Your task to perform on an android device: Open the map Image 0: 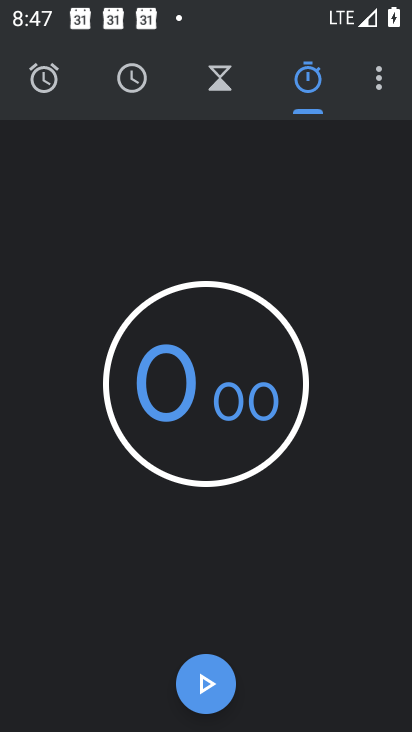
Step 0: press home button
Your task to perform on an android device: Open the map Image 1: 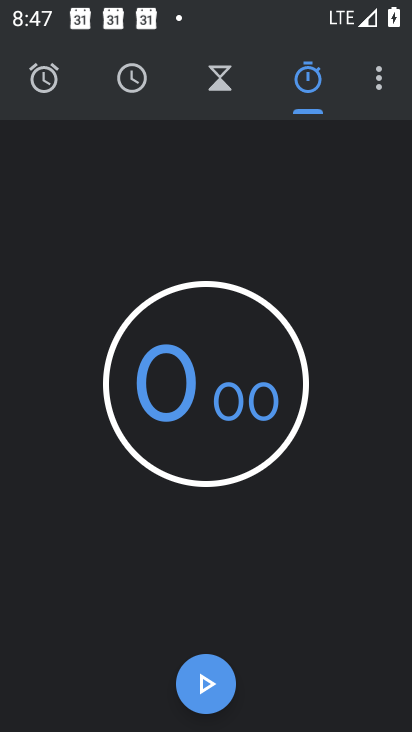
Step 1: press home button
Your task to perform on an android device: Open the map Image 2: 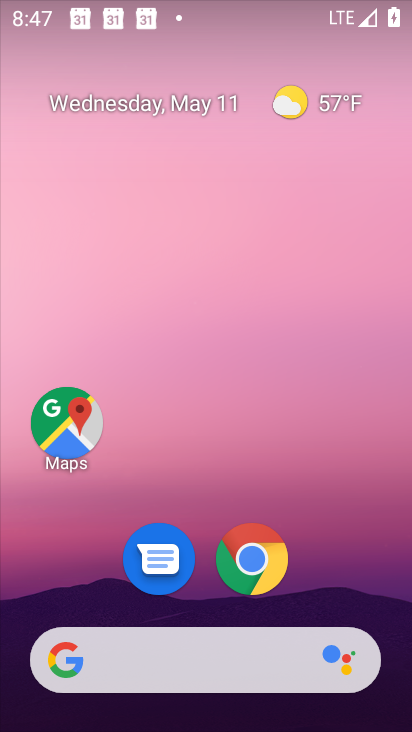
Step 2: click (69, 434)
Your task to perform on an android device: Open the map Image 3: 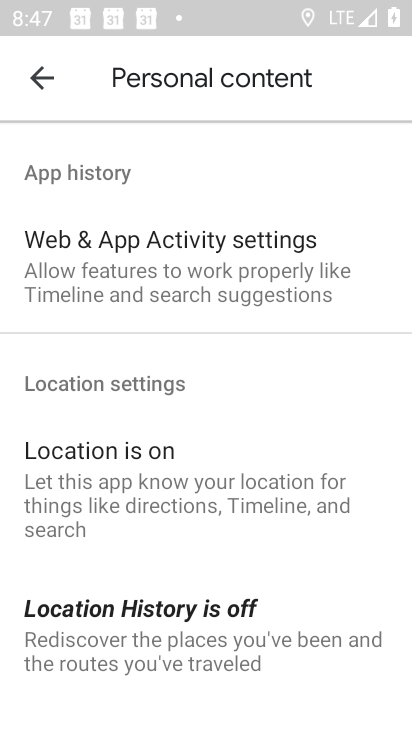
Step 3: task complete